Your task to perform on an android device: What's the weather going to be tomorrow? Image 0: 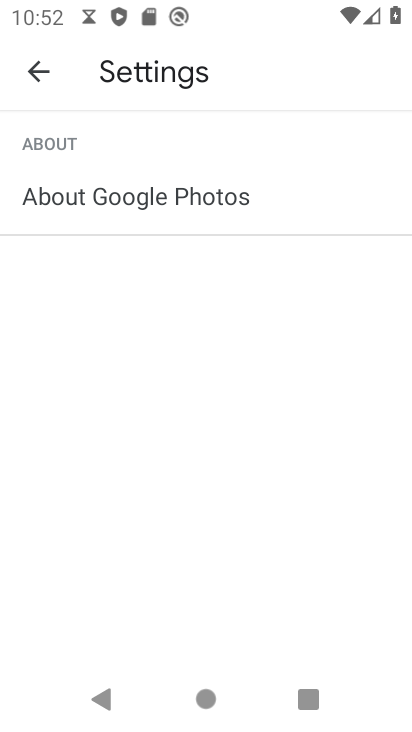
Step 0: press home button
Your task to perform on an android device: What's the weather going to be tomorrow? Image 1: 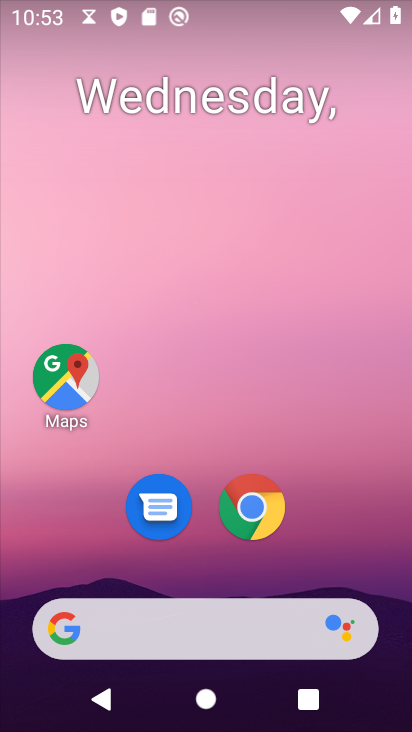
Step 1: drag from (244, 587) to (182, 131)
Your task to perform on an android device: What's the weather going to be tomorrow? Image 2: 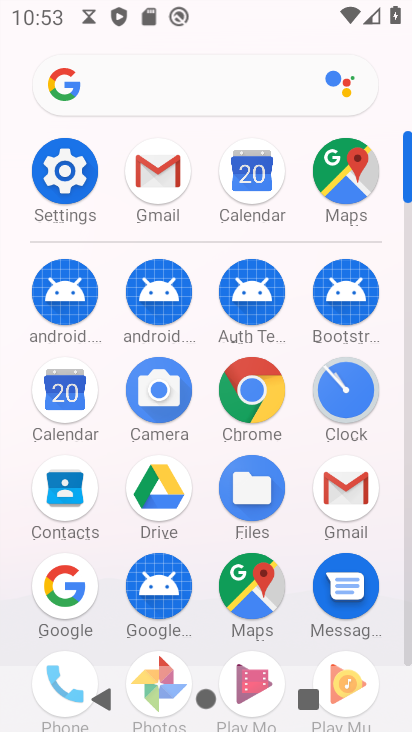
Step 2: click (135, 98)
Your task to perform on an android device: What's the weather going to be tomorrow? Image 3: 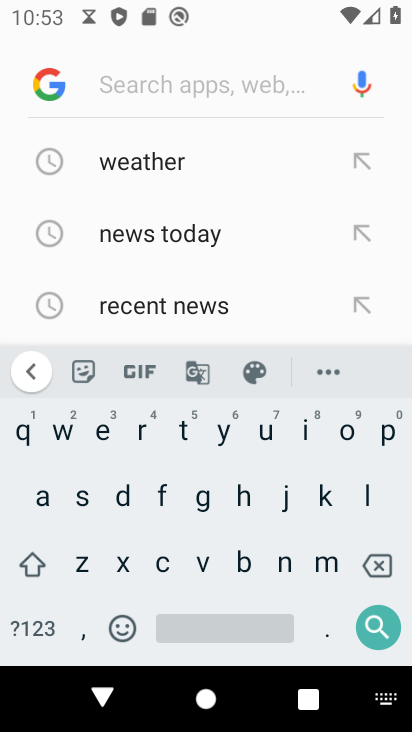
Step 3: click (166, 160)
Your task to perform on an android device: What's the weather going to be tomorrow? Image 4: 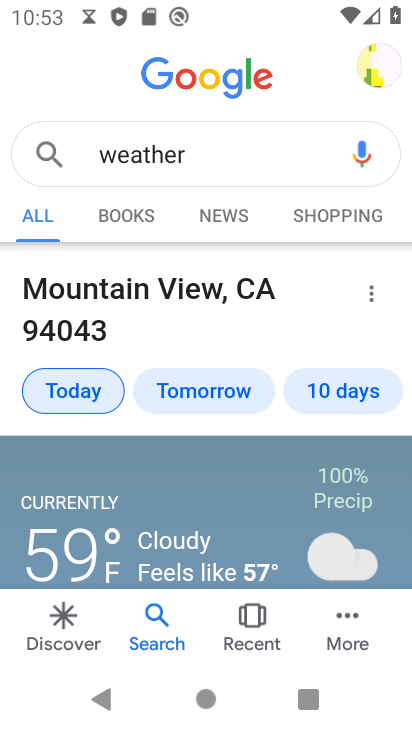
Step 4: task complete